Your task to perform on an android device: What is the recent news? Image 0: 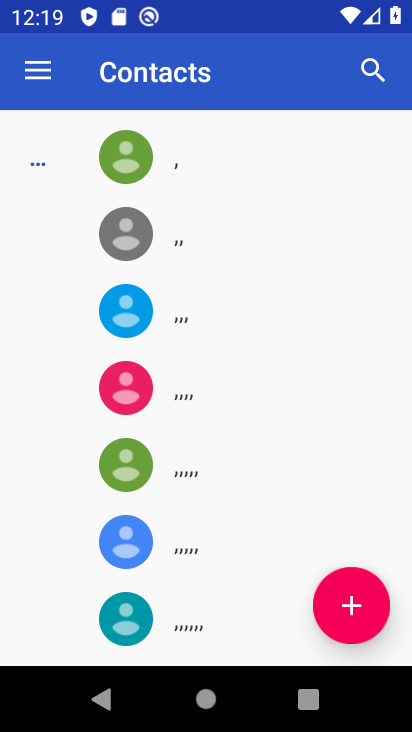
Step 0: press home button
Your task to perform on an android device: What is the recent news? Image 1: 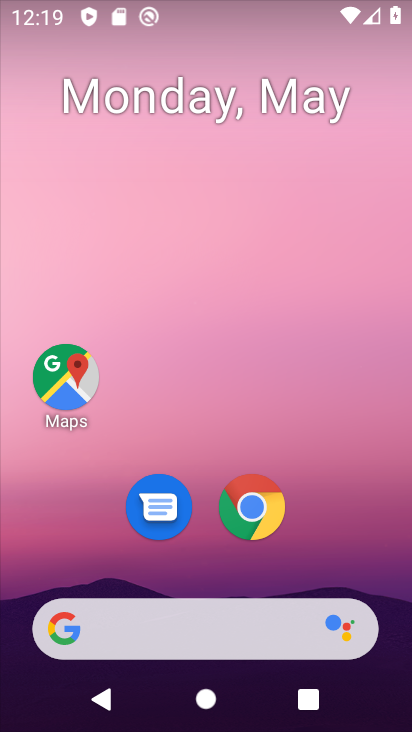
Step 1: task complete